Your task to perform on an android device: turn notification dots on Image 0: 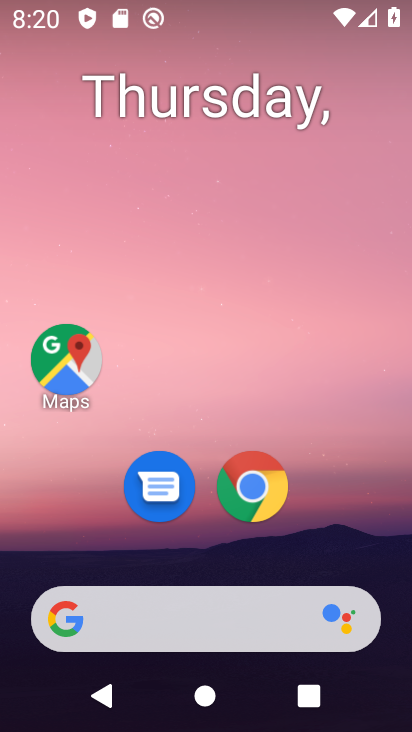
Step 0: drag from (80, 549) to (200, 14)
Your task to perform on an android device: turn notification dots on Image 1: 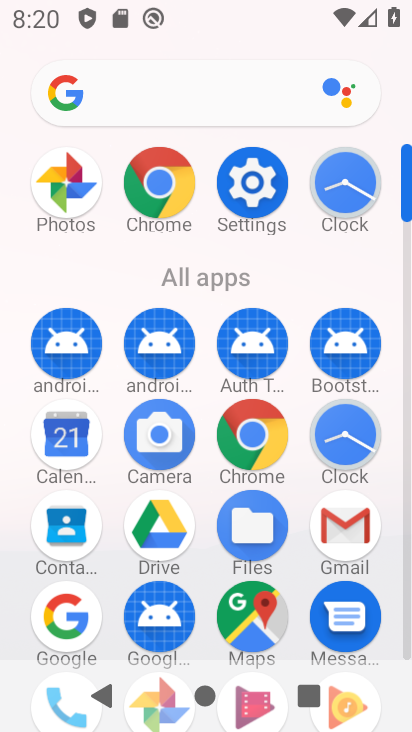
Step 1: click (261, 180)
Your task to perform on an android device: turn notification dots on Image 2: 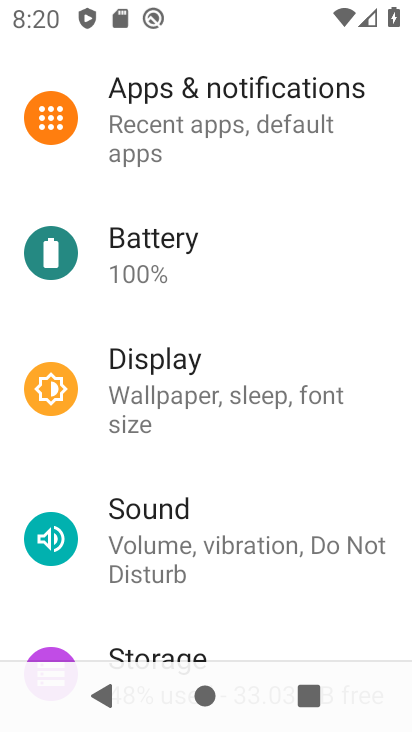
Step 2: click (237, 121)
Your task to perform on an android device: turn notification dots on Image 3: 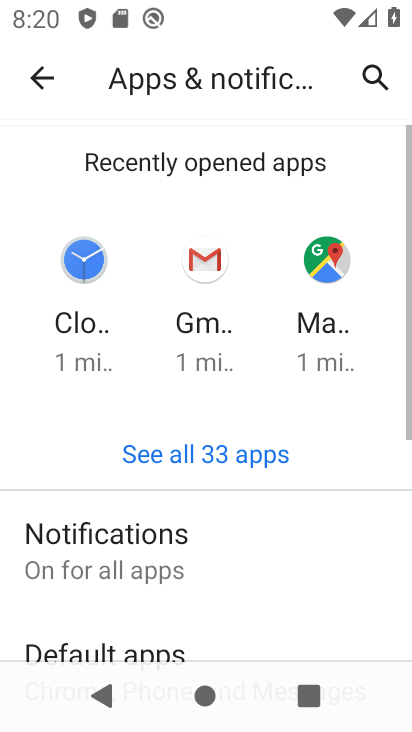
Step 3: click (133, 552)
Your task to perform on an android device: turn notification dots on Image 4: 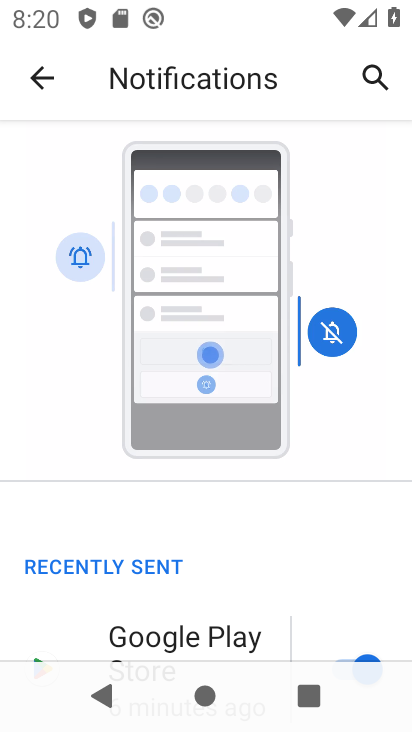
Step 4: drag from (131, 632) to (245, 161)
Your task to perform on an android device: turn notification dots on Image 5: 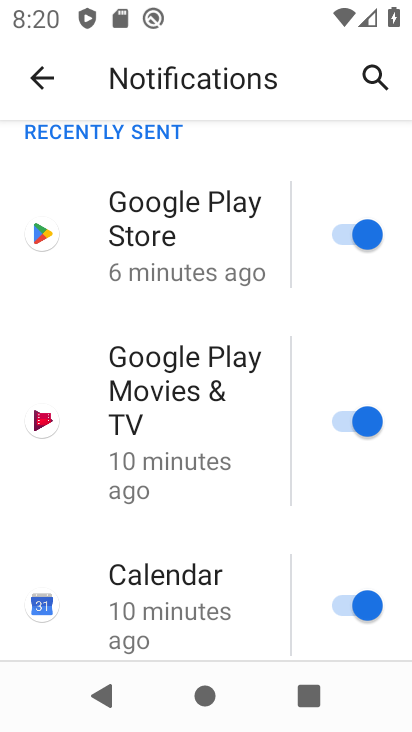
Step 5: drag from (179, 603) to (270, 47)
Your task to perform on an android device: turn notification dots on Image 6: 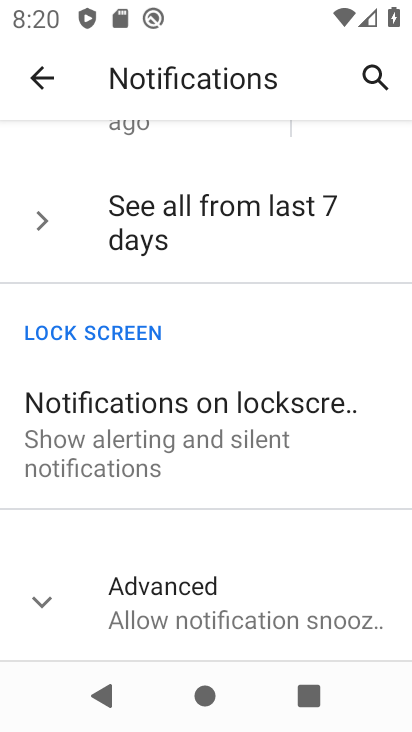
Step 6: click (208, 598)
Your task to perform on an android device: turn notification dots on Image 7: 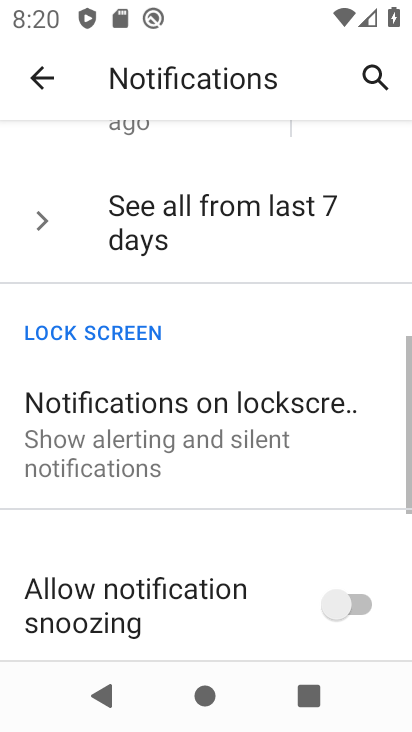
Step 7: task complete